Your task to perform on an android device: open app "Paramount+ | Peak Streaming" Image 0: 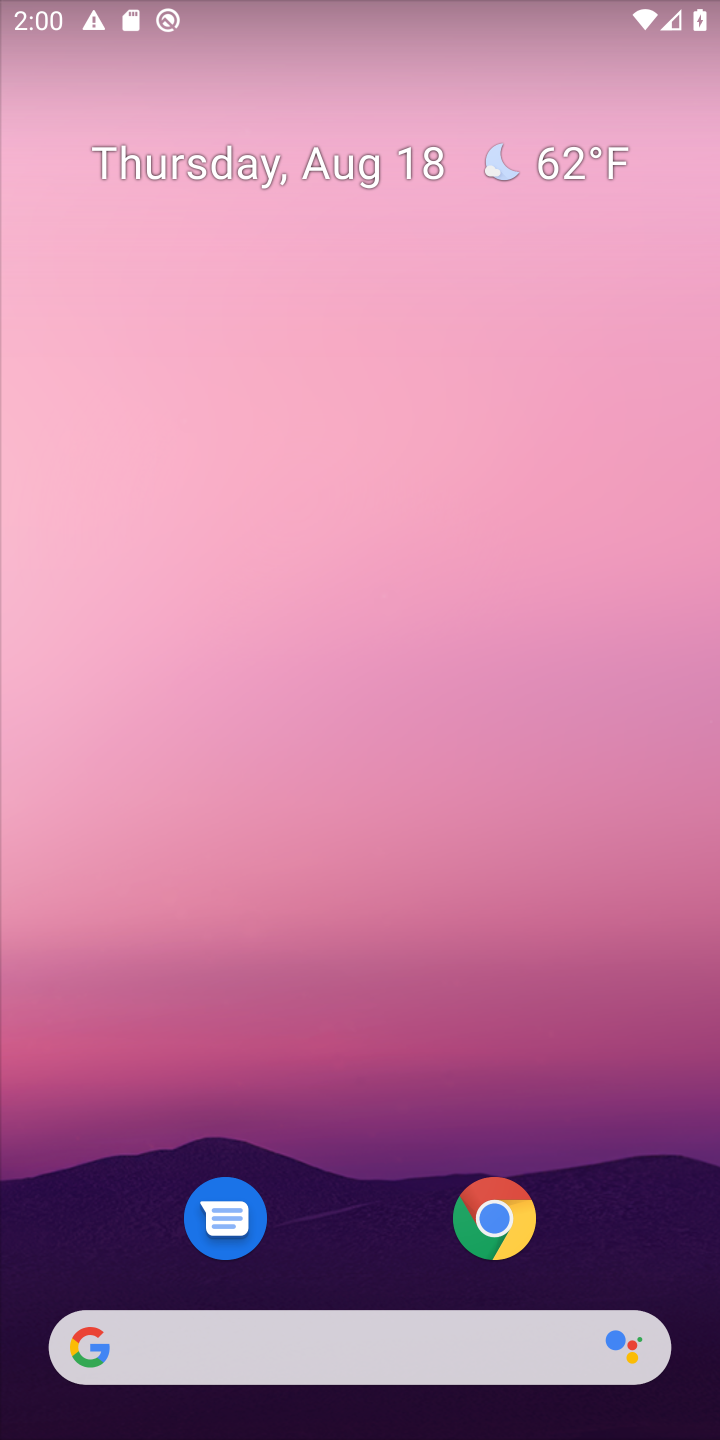
Step 0: drag from (351, 786) to (408, 233)
Your task to perform on an android device: open app "Paramount+ | Peak Streaming" Image 1: 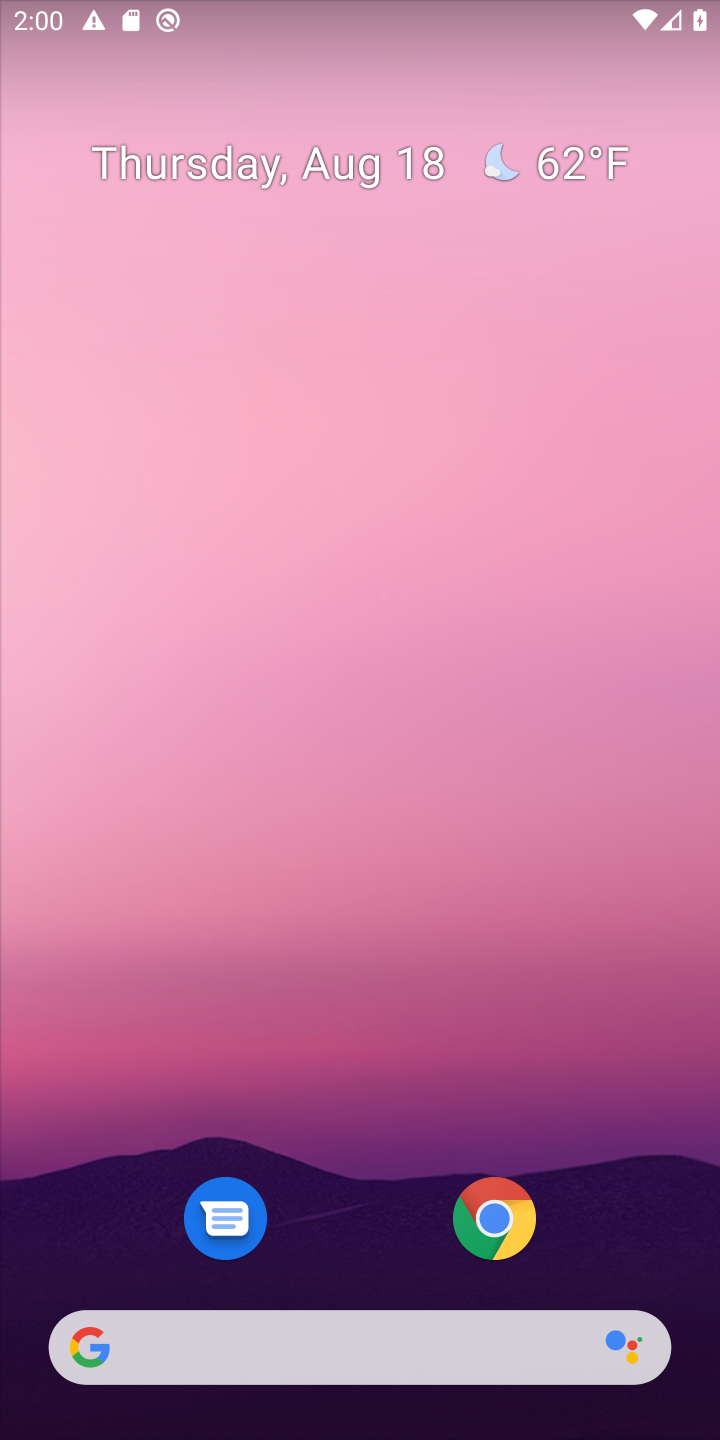
Step 1: drag from (352, 1165) to (358, 338)
Your task to perform on an android device: open app "Paramount+ | Peak Streaming" Image 2: 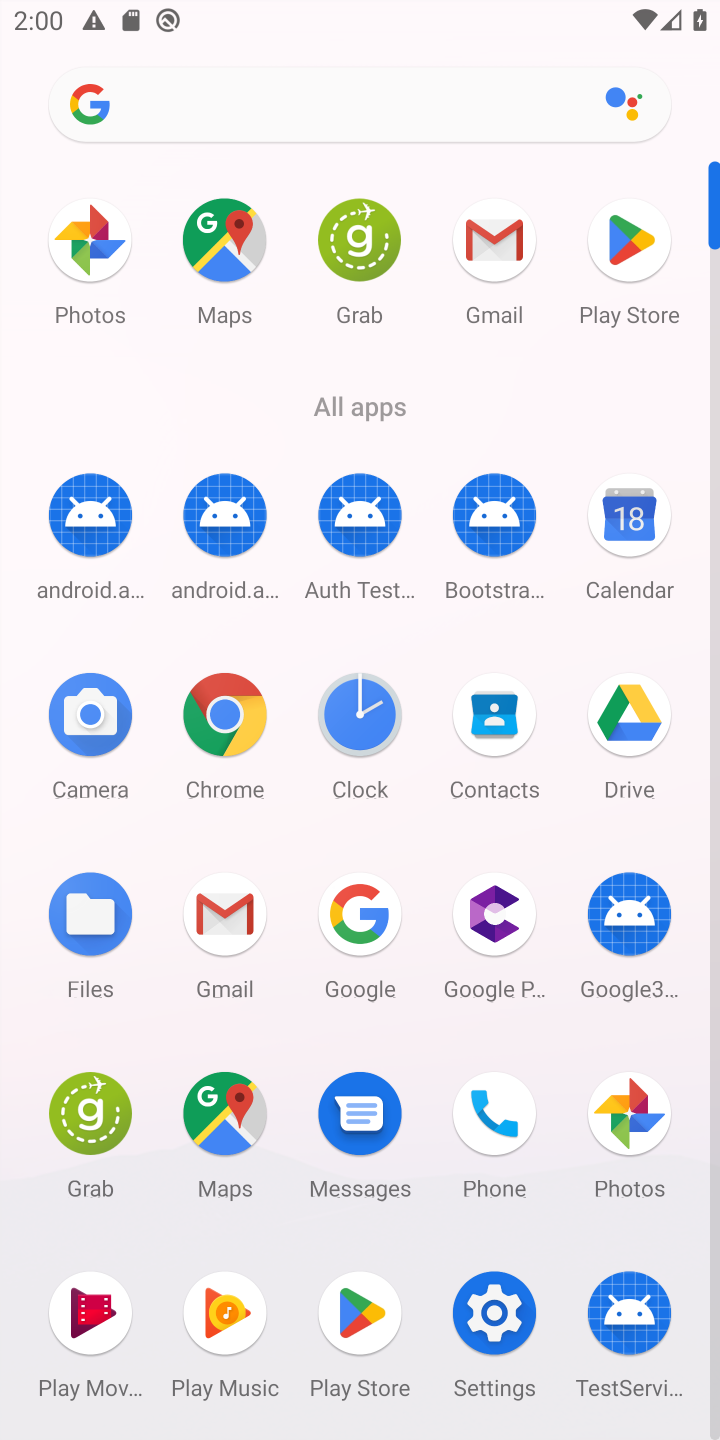
Step 2: click (601, 257)
Your task to perform on an android device: open app "Paramount+ | Peak Streaming" Image 3: 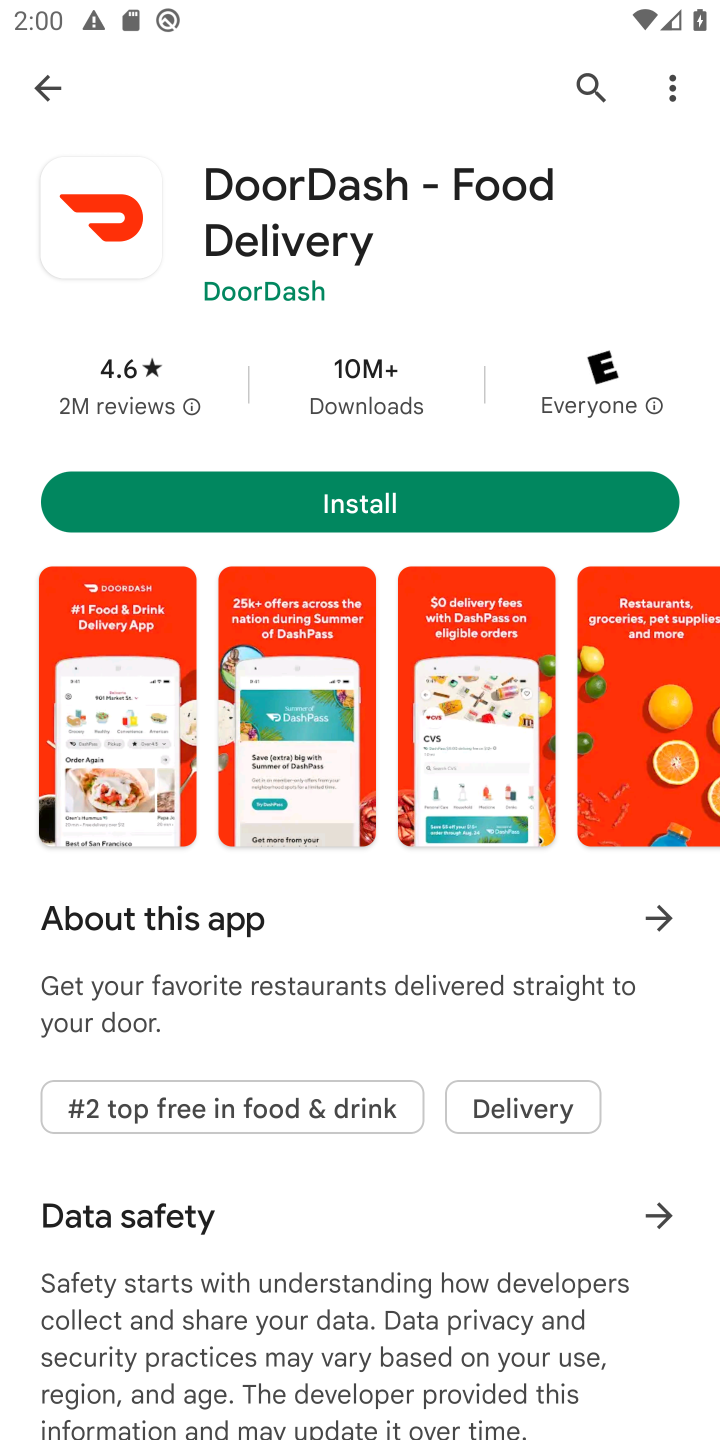
Step 3: click (596, 75)
Your task to perform on an android device: open app "Paramount+ | Peak Streaming" Image 4: 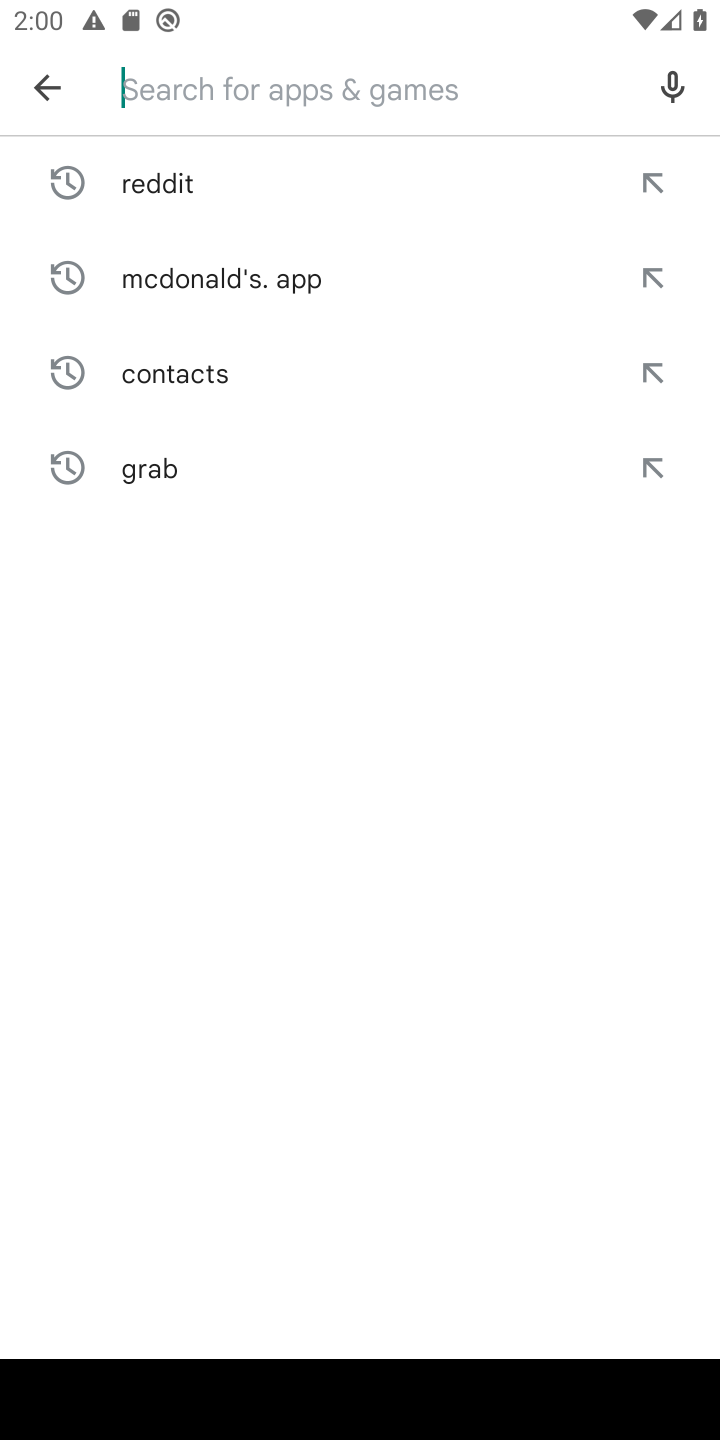
Step 4: type "Paramount+ | Peak Streaming"
Your task to perform on an android device: open app "Paramount+ | Peak Streaming" Image 5: 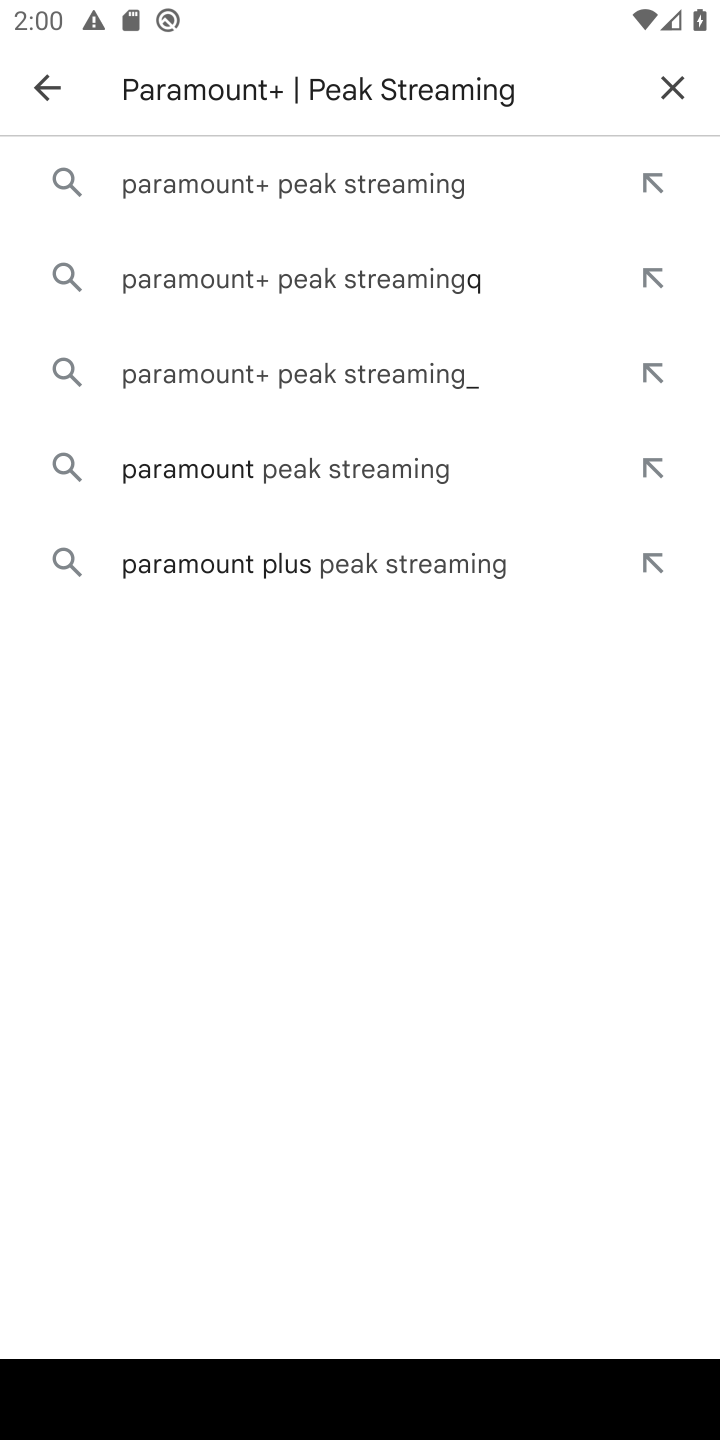
Step 5: click (292, 183)
Your task to perform on an android device: open app "Paramount+ | Peak Streaming" Image 6: 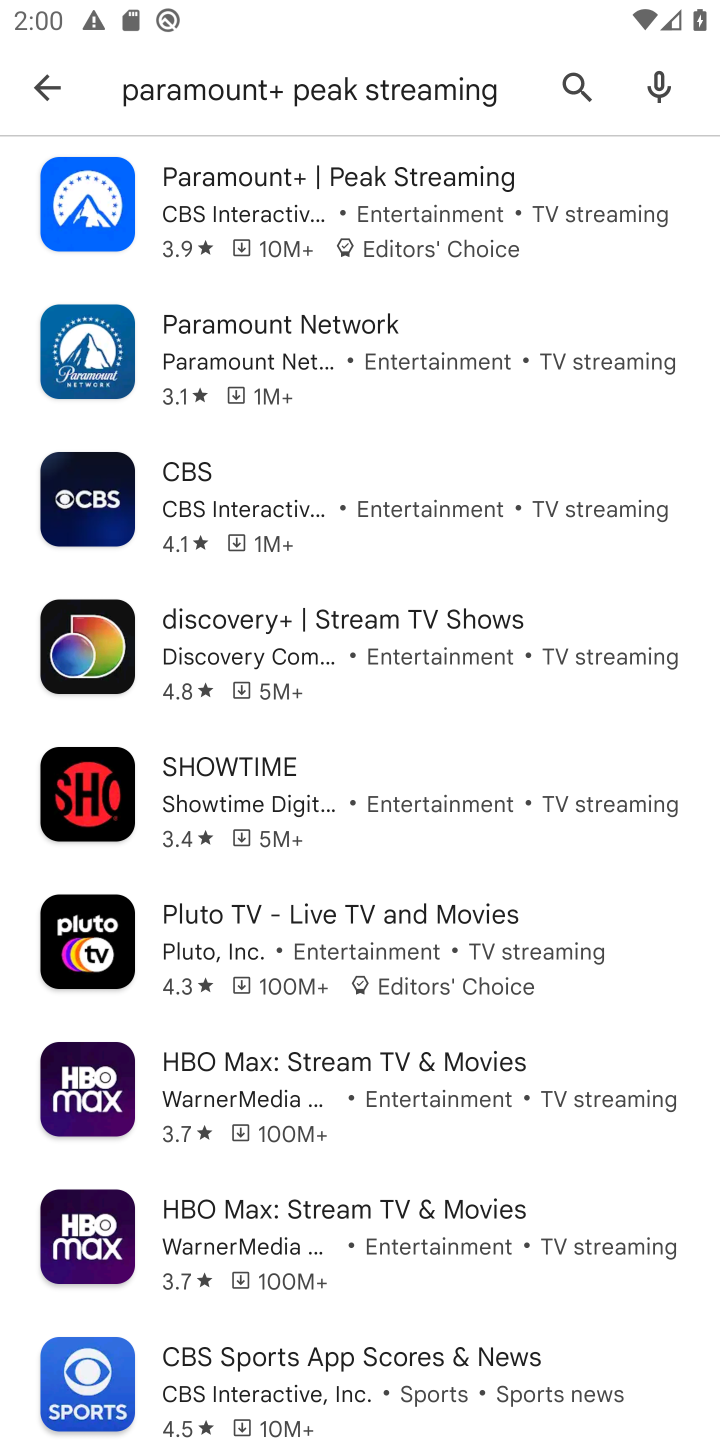
Step 6: click (343, 192)
Your task to perform on an android device: open app "Paramount+ | Peak Streaming" Image 7: 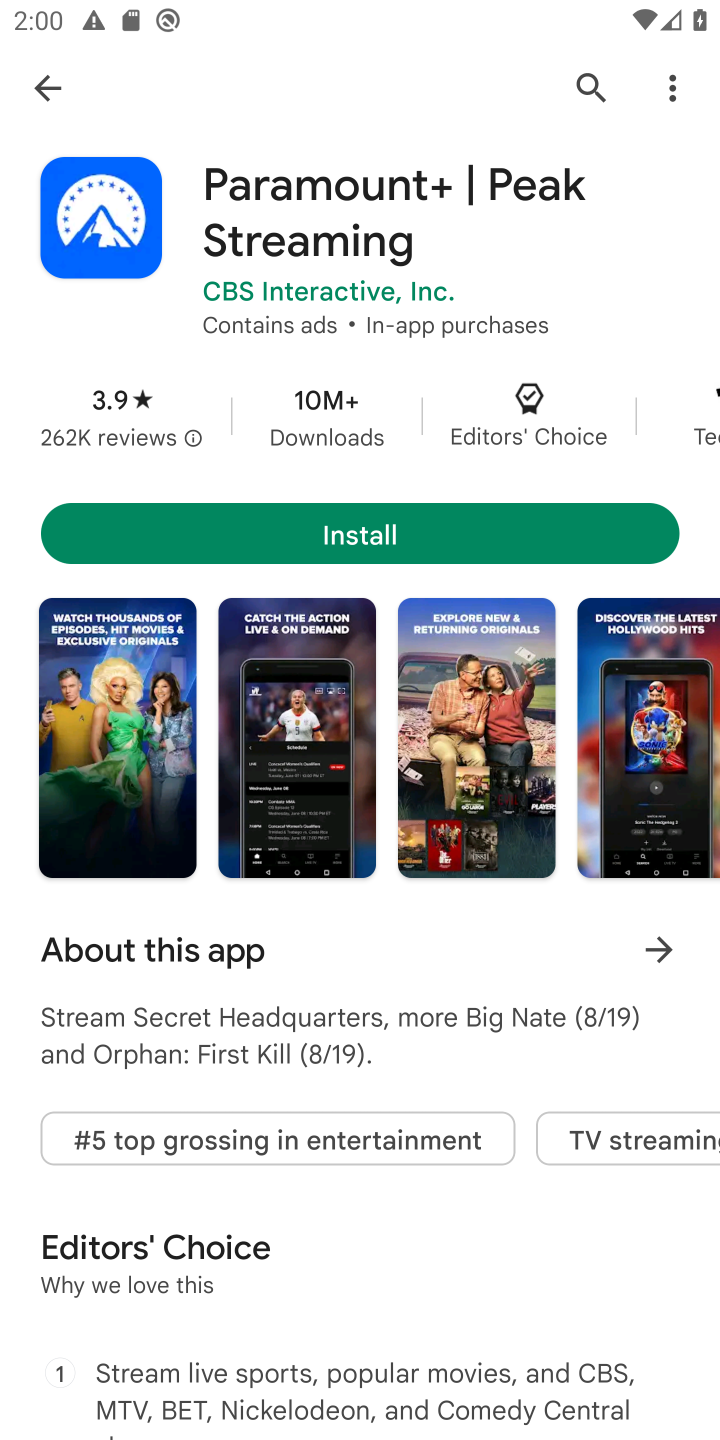
Step 7: task complete